Your task to perform on an android device: turn off priority inbox in the gmail app Image 0: 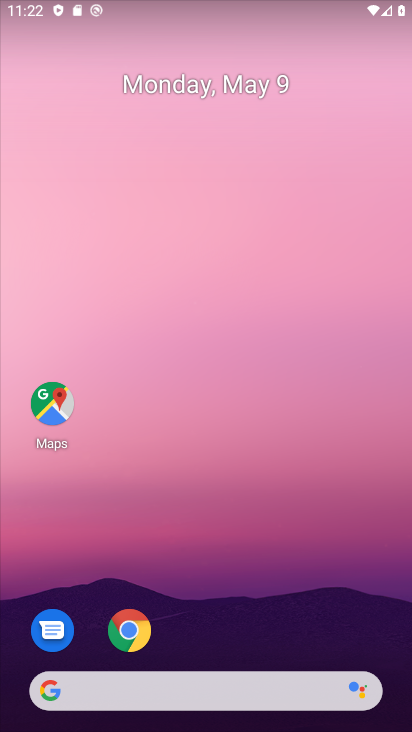
Step 0: drag from (223, 539) to (207, 63)
Your task to perform on an android device: turn off priority inbox in the gmail app Image 1: 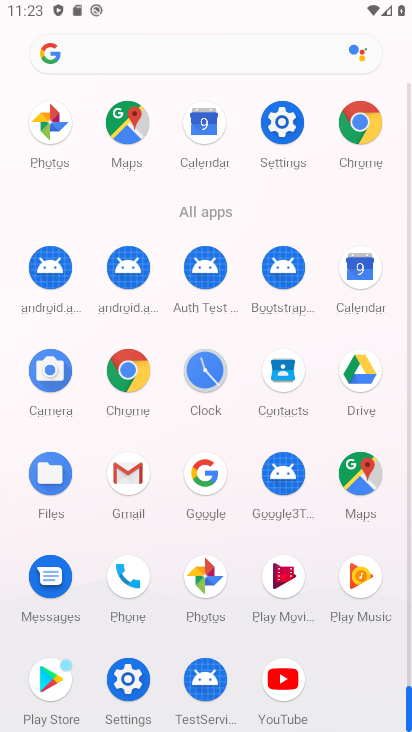
Step 1: drag from (11, 508) to (7, 167)
Your task to perform on an android device: turn off priority inbox in the gmail app Image 2: 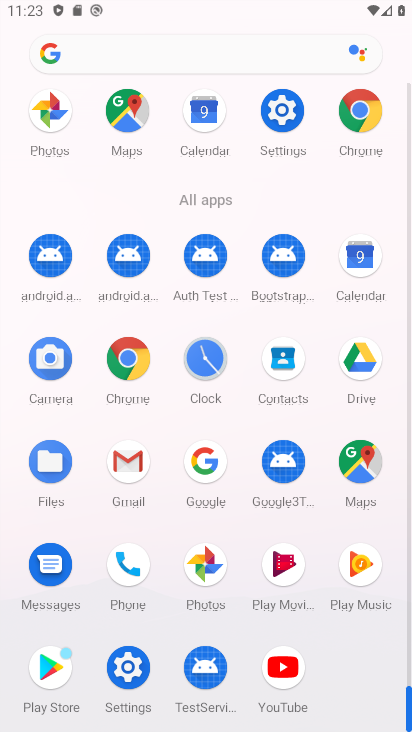
Step 2: click (124, 458)
Your task to perform on an android device: turn off priority inbox in the gmail app Image 3: 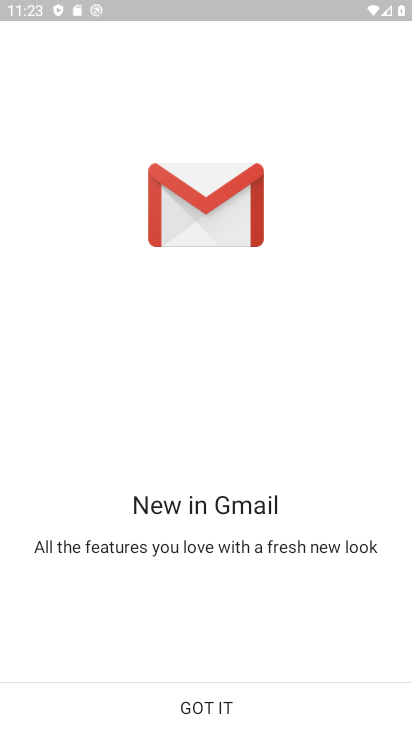
Step 3: click (191, 695)
Your task to perform on an android device: turn off priority inbox in the gmail app Image 4: 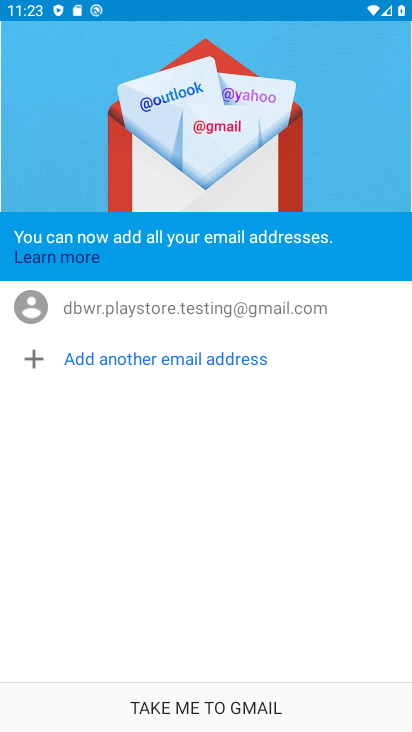
Step 4: click (202, 704)
Your task to perform on an android device: turn off priority inbox in the gmail app Image 5: 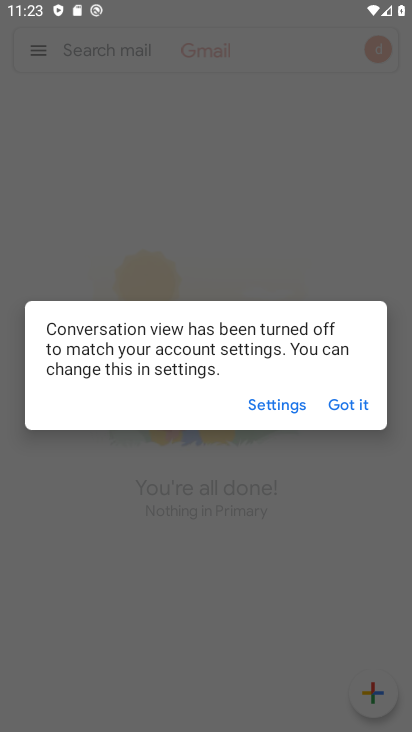
Step 5: click (339, 407)
Your task to perform on an android device: turn off priority inbox in the gmail app Image 6: 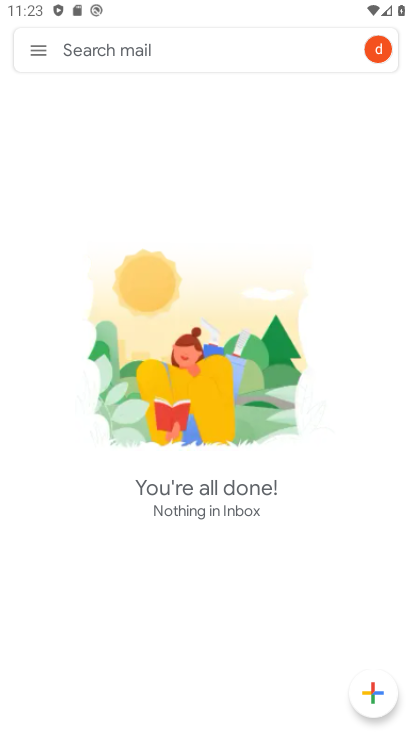
Step 6: click (38, 44)
Your task to perform on an android device: turn off priority inbox in the gmail app Image 7: 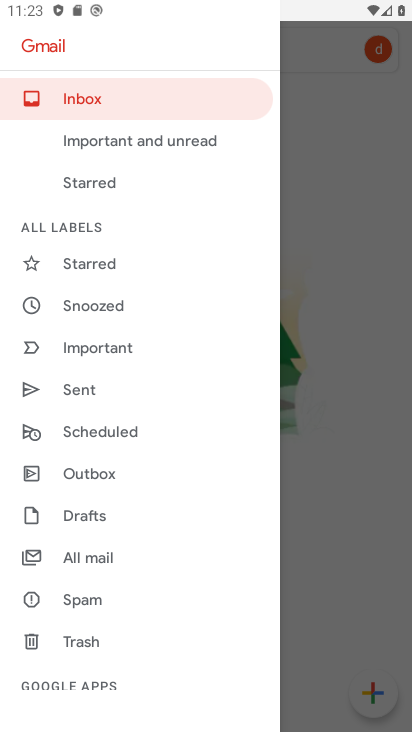
Step 7: drag from (170, 538) to (135, 105)
Your task to perform on an android device: turn off priority inbox in the gmail app Image 8: 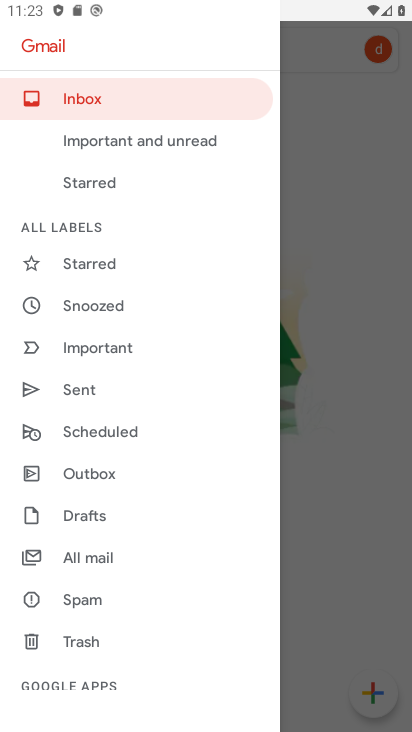
Step 8: drag from (151, 700) to (152, 382)
Your task to perform on an android device: turn off priority inbox in the gmail app Image 9: 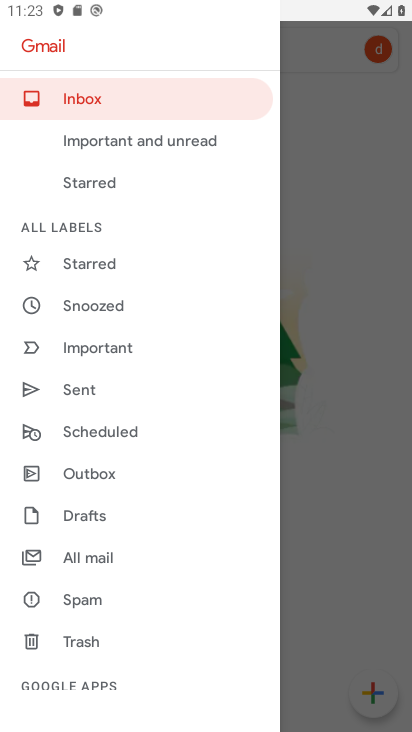
Step 9: drag from (124, 332) to (103, 165)
Your task to perform on an android device: turn off priority inbox in the gmail app Image 10: 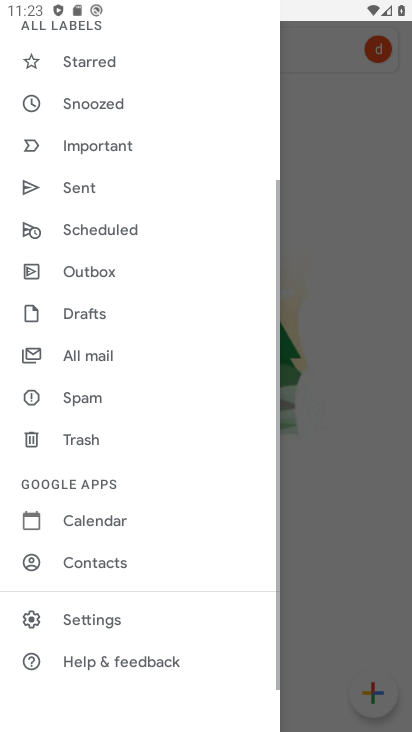
Step 10: click (81, 626)
Your task to perform on an android device: turn off priority inbox in the gmail app Image 11: 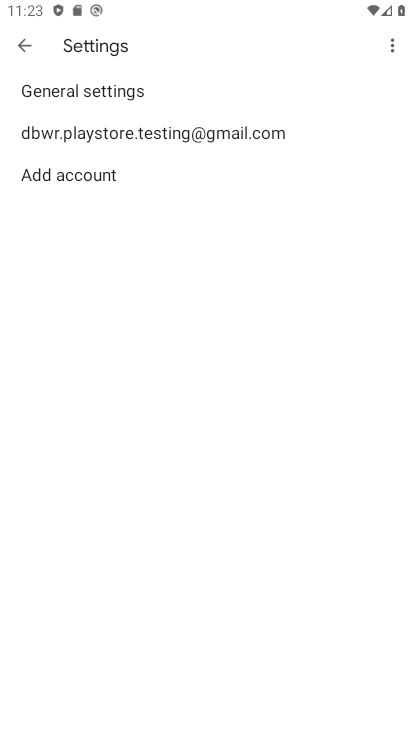
Step 11: click (143, 133)
Your task to perform on an android device: turn off priority inbox in the gmail app Image 12: 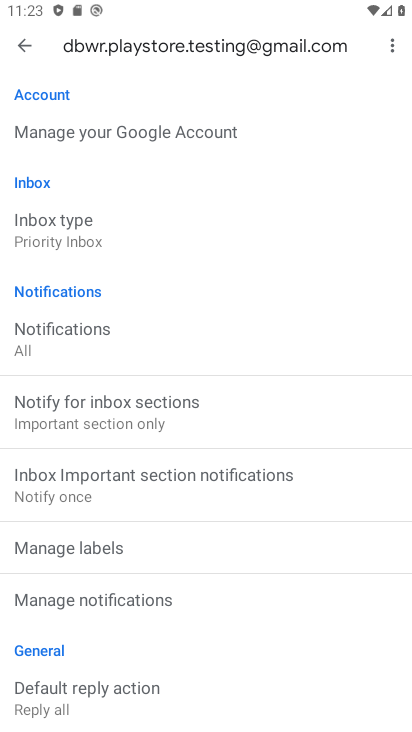
Step 12: click (106, 223)
Your task to perform on an android device: turn off priority inbox in the gmail app Image 13: 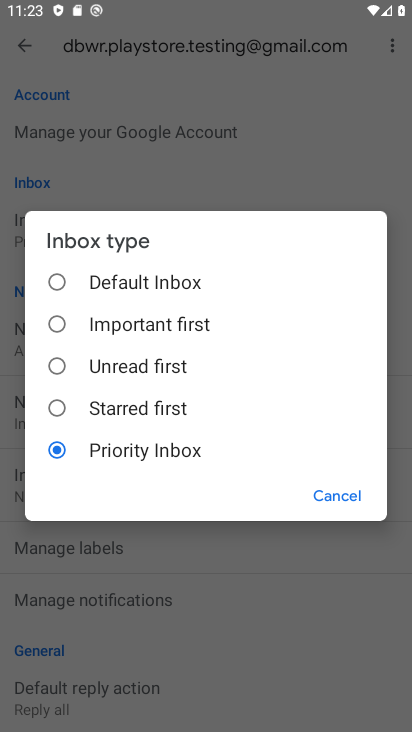
Step 13: click (132, 265)
Your task to perform on an android device: turn off priority inbox in the gmail app Image 14: 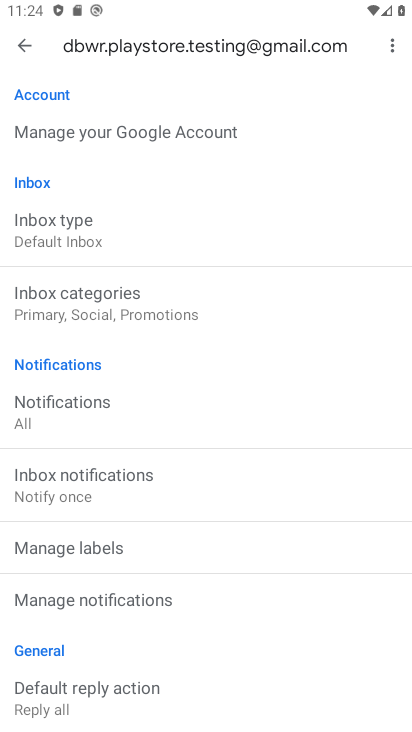
Step 14: task complete